Your task to perform on an android device: Open Yahoo.com Image 0: 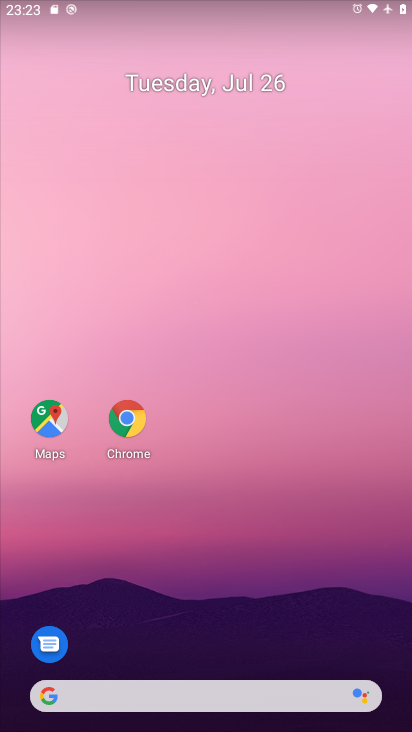
Step 0: drag from (269, 637) to (264, 175)
Your task to perform on an android device: Open Yahoo.com Image 1: 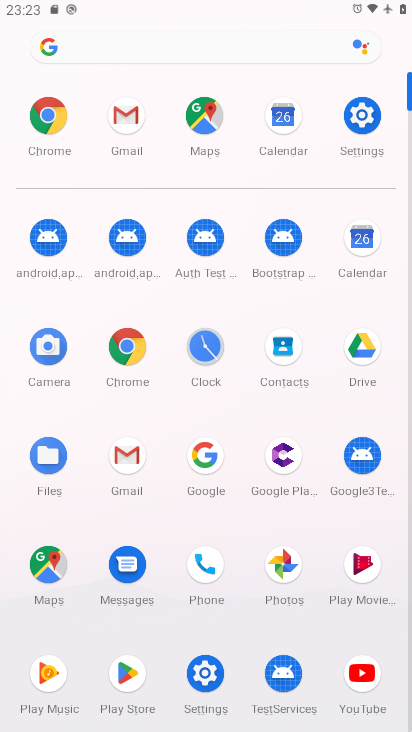
Step 1: click (35, 130)
Your task to perform on an android device: Open Yahoo.com Image 2: 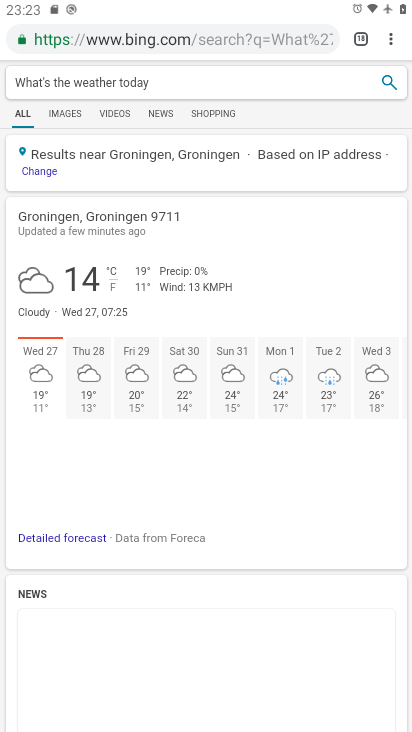
Step 2: click (387, 36)
Your task to perform on an android device: Open Yahoo.com Image 3: 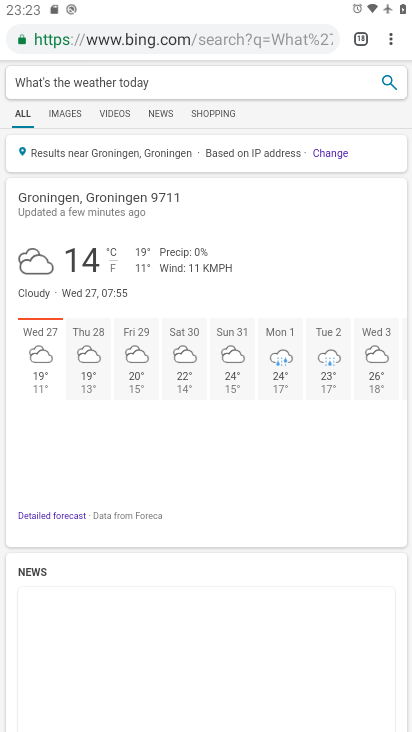
Step 3: click (389, 35)
Your task to perform on an android device: Open Yahoo.com Image 4: 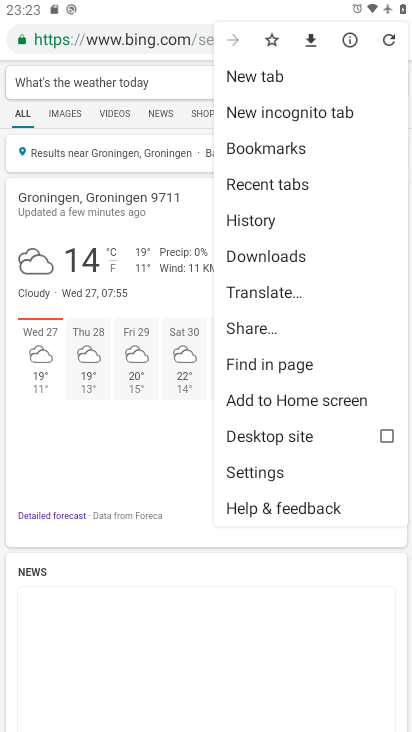
Step 4: click (251, 76)
Your task to perform on an android device: Open Yahoo.com Image 5: 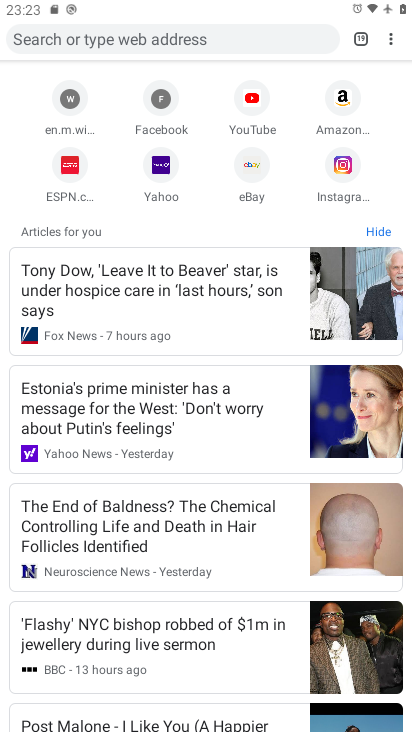
Step 5: click (161, 156)
Your task to perform on an android device: Open Yahoo.com Image 6: 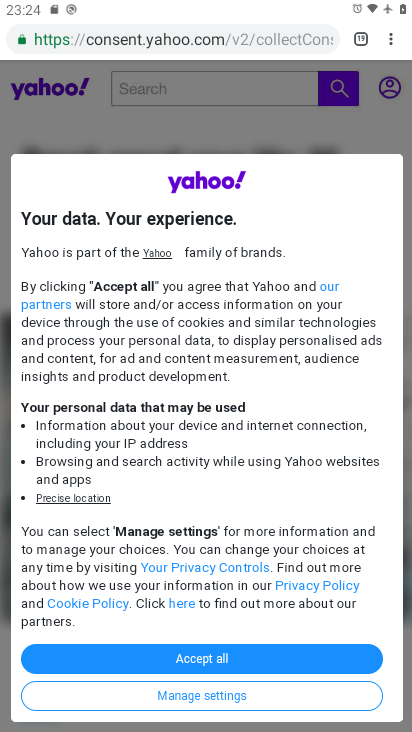
Step 6: task complete